Your task to perform on an android device: see sites visited before in the chrome app Image 0: 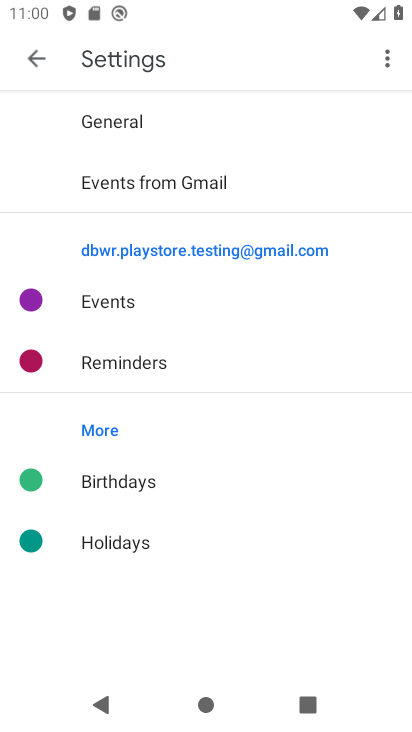
Step 0: press back button
Your task to perform on an android device: see sites visited before in the chrome app Image 1: 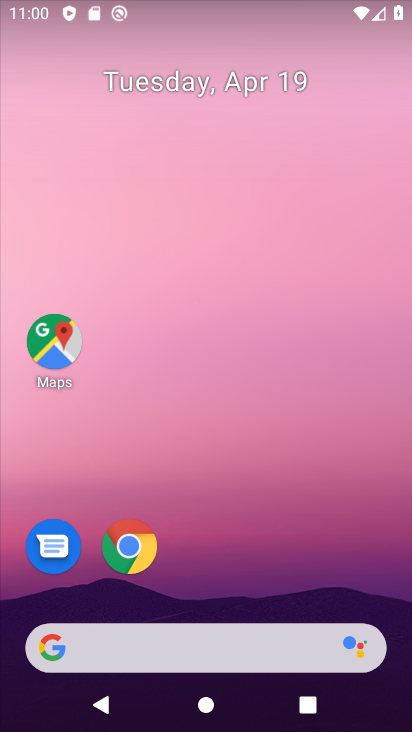
Step 1: drag from (328, 545) to (186, 1)
Your task to perform on an android device: see sites visited before in the chrome app Image 2: 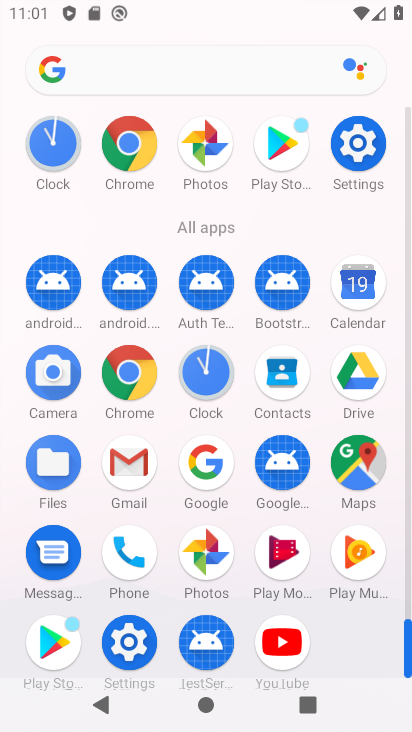
Step 2: click (126, 370)
Your task to perform on an android device: see sites visited before in the chrome app Image 3: 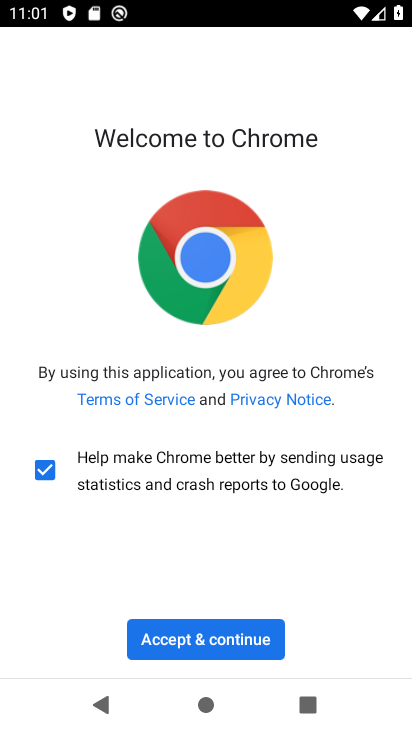
Step 3: click (195, 642)
Your task to perform on an android device: see sites visited before in the chrome app Image 4: 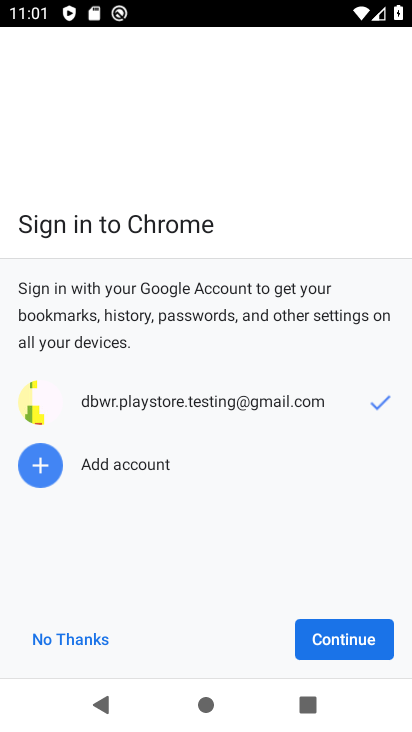
Step 4: click (323, 626)
Your task to perform on an android device: see sites visited before in the chrome app Image 5: 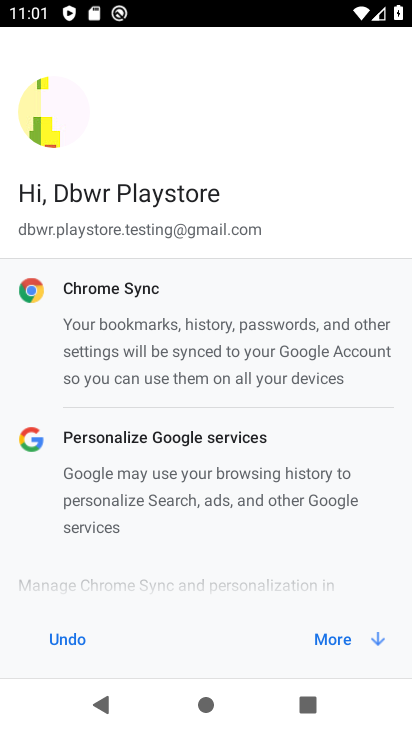
Step 5: click (334, 647)
Your task to perform on an android device: see sites visited before in the chrome app Image 6: 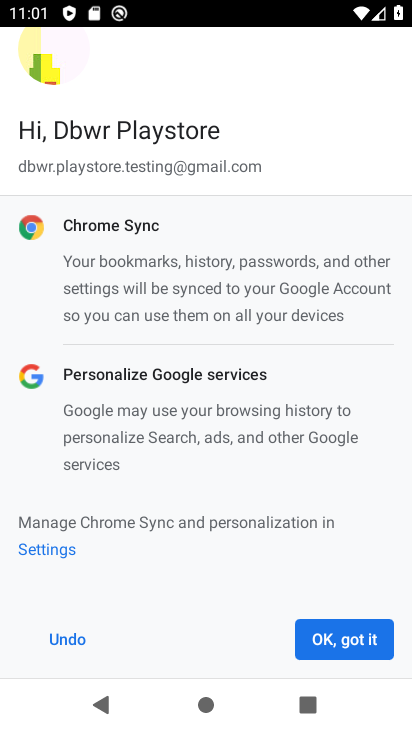
Step 6: click (331, 647)
Your task to perform on an android device: see sites visited before in the chrome app Image 7: 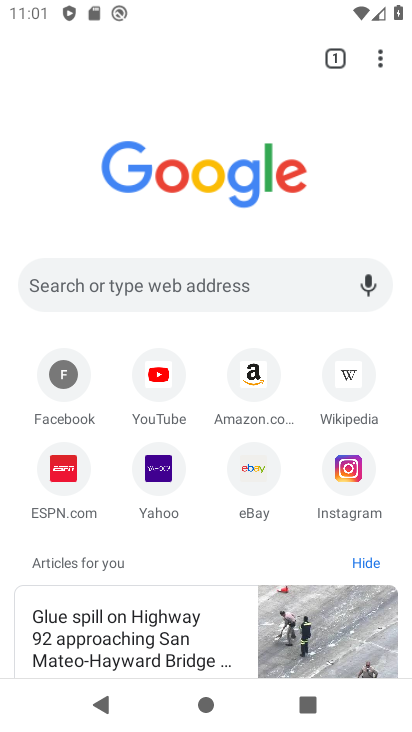
Step 7: task complete